Your task to perform on an android device: Go to display settings Image 0: 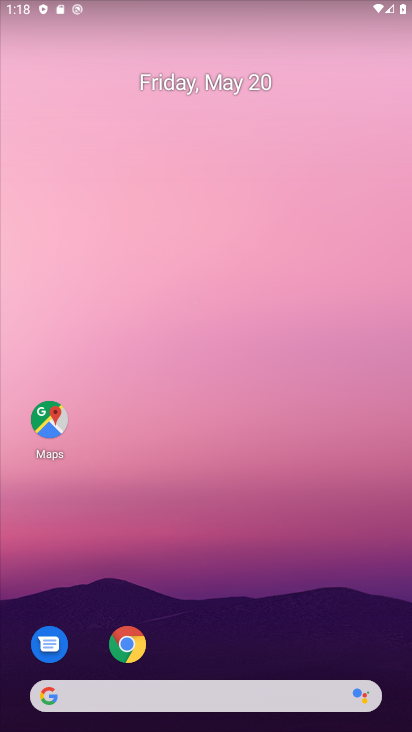
Step 0: drag from (203, 675) to (246, 145)
Your task to perform on an android device: Go to display settings Image 1: 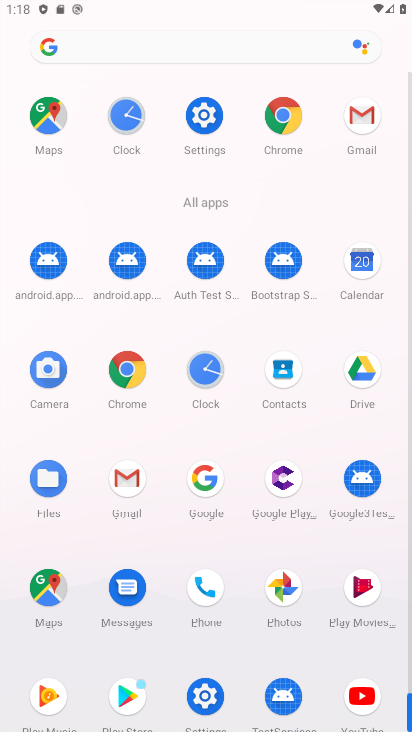
Step 1: click (220, 114)
Your task to perform on an android device: Go to display settings Image 2: 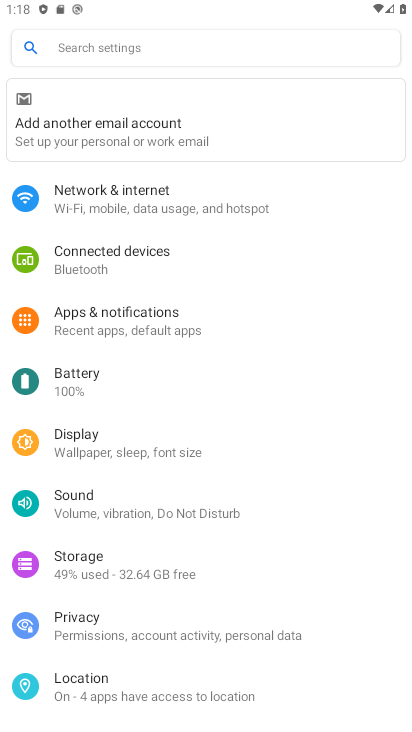
Step 2: click (80, 440)
Your task to perform on an android device: Go to display settings Image 3: 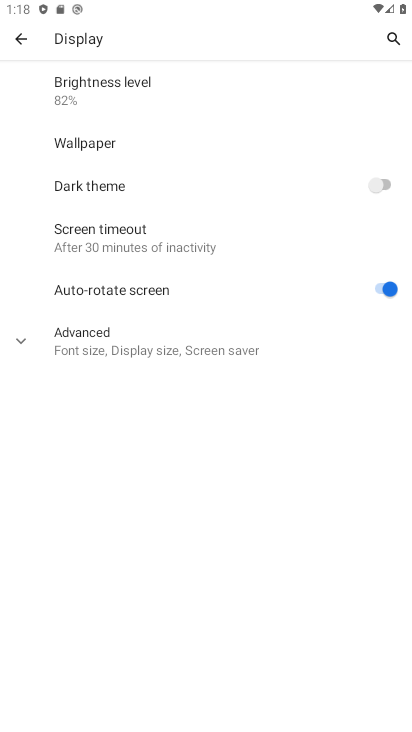
Step 3: task complete